Your task to perform on an android device: turn on data saver in the chrome app Image 0: 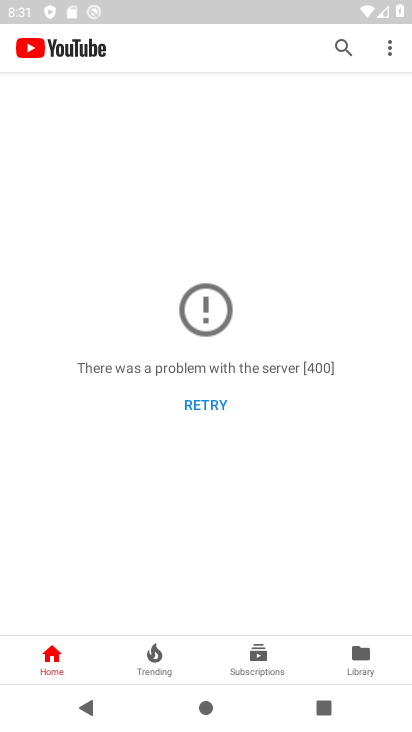
Step 0: press home button
Your task to perform on an android device: turn on data saver in the chrome app Image 1: 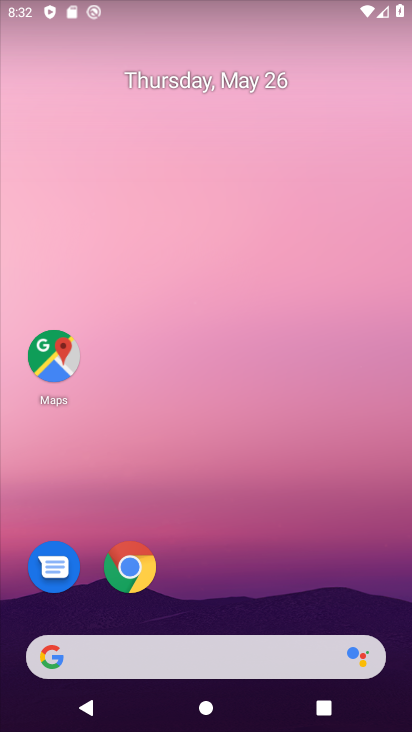
Step 1: click (136, 572)
Your task to perform on an android device: turn on data saver in the chrome app Image 2: 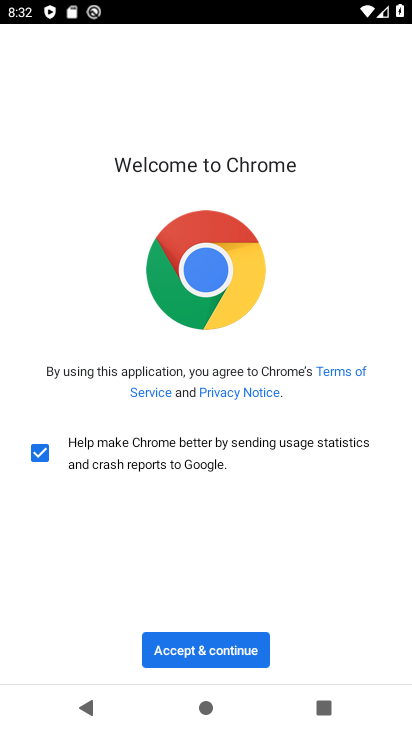
Step 2: click (206, 640)
Your task to perform on an android device: turn on data saver in the chrome app Image 3: 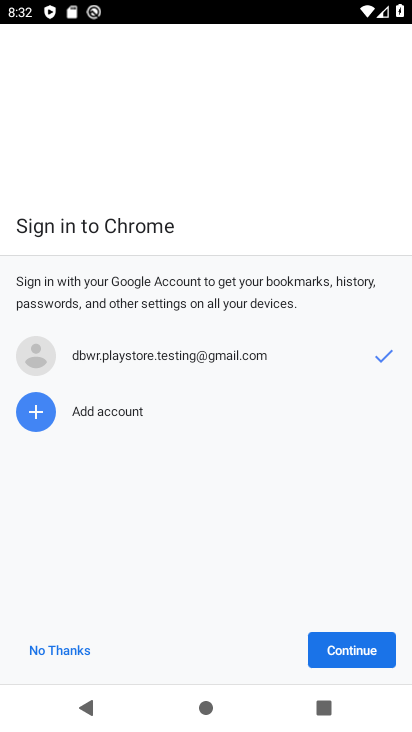
Step 3: click (372, 639)
Your task to perform on an android device: turn on data saver in the chrome app Image 4: 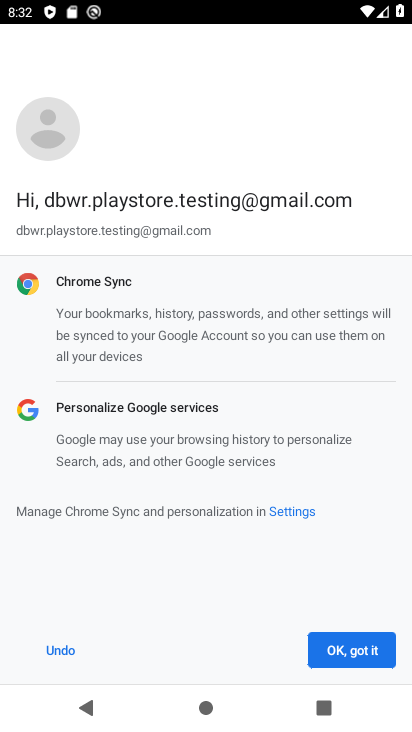
Step 4: click (372, 639)
Your task to perform on an android device: turn on data saver in the chrome app Image 5: 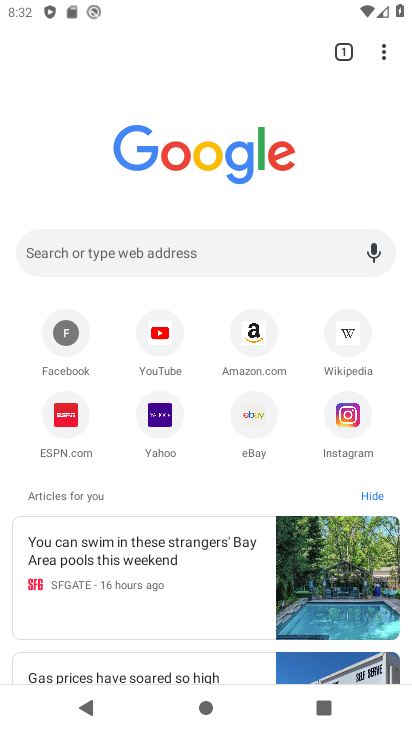
Step 5: click (389, 52)
Your task to perform on an android device: turn on data saver in the chrome app Image 6: 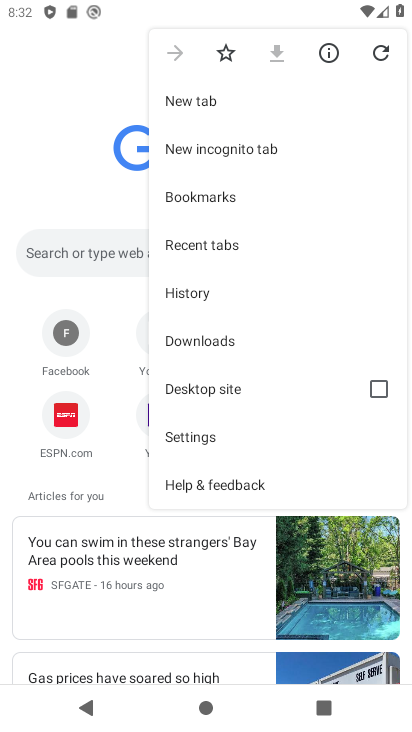
Step 6: click (197, 436)
Your task to perform on an android device: turn on data saver in the chrome app Image 7: 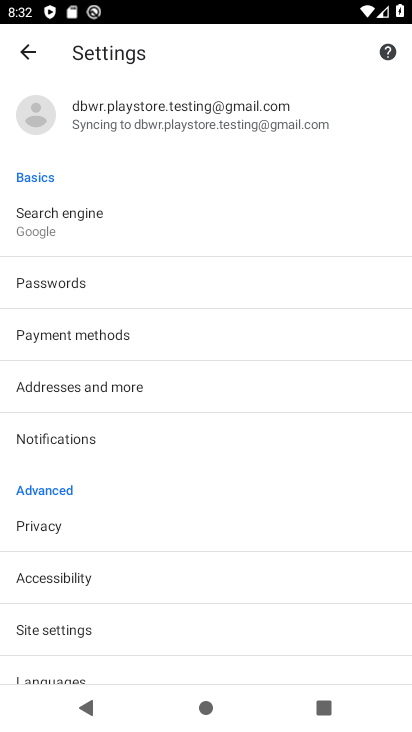
Step 7: drag from (113, 566) to (157, 262)
Your task to perform on an android device: turn on data saver in the chrome app Image 8: 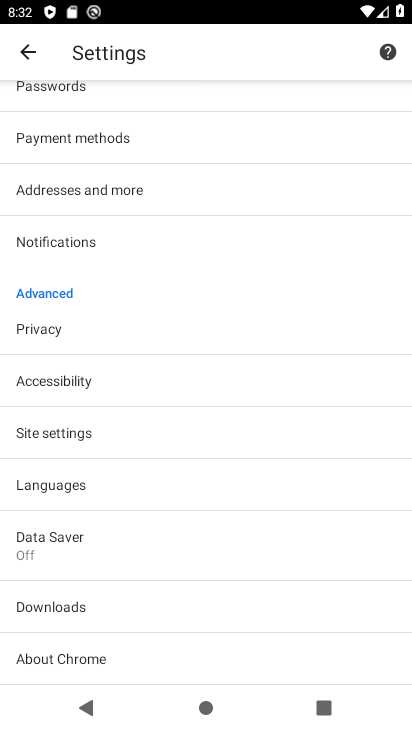
Step 8: click (61, 540)
Your task to perform on an android device: turn on data saver in the chrome app Image 9: 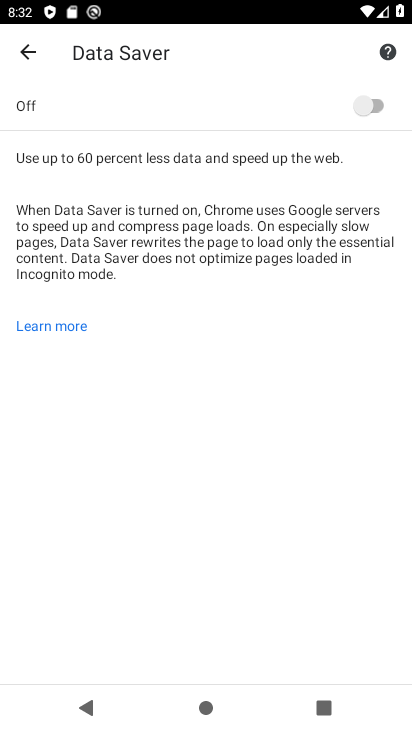
Step 9: click (376, 104)
Your task to perform on an android device: turn on data saver in the chrome app Image 10: 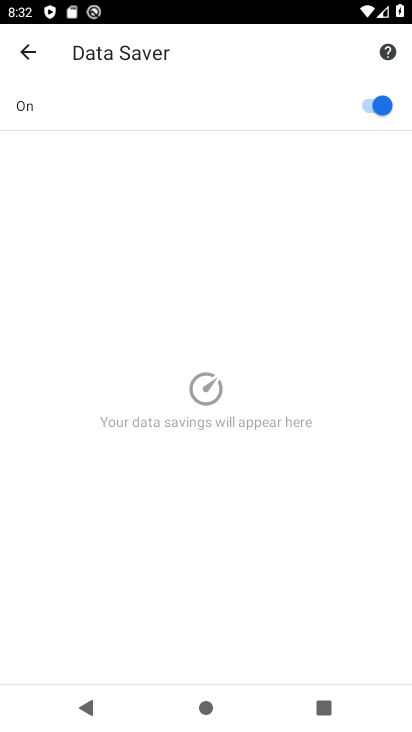
Step 10: task complete